Your task to perform on an android device: remove spam from my inbox in the gmail app Image 0: 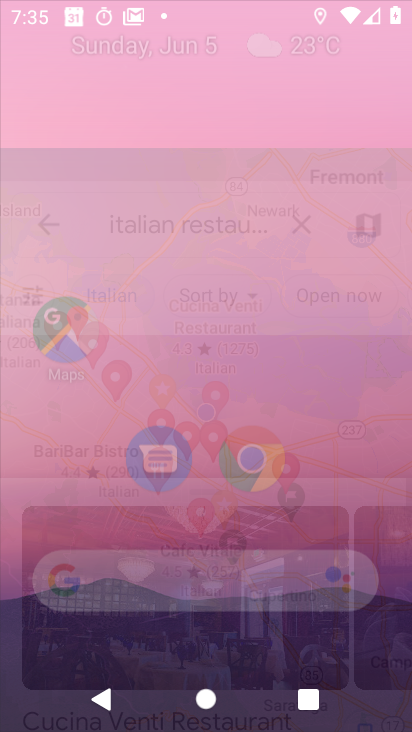
Step 0: click (132, 25)
Your task to perform on an android device: remove spam from my inbox in the gmail app Image 1: 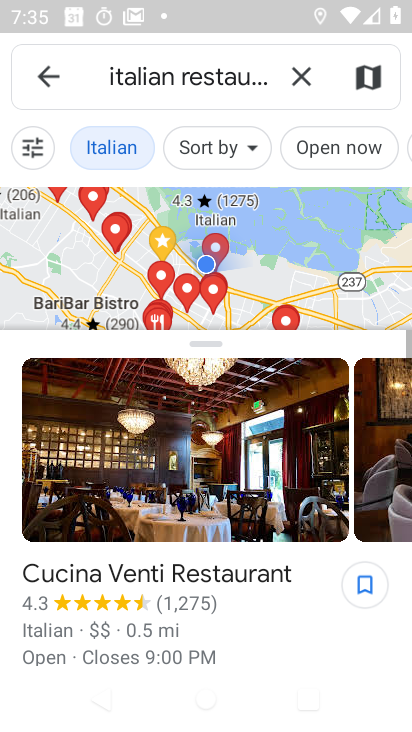
Step 1: press home button
Your task to perform on an android device: remove spam from my inbox in the gmail app Image 2: 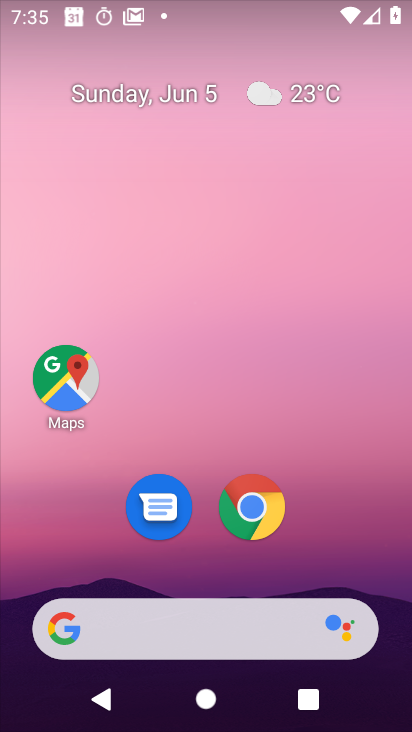
Step 2: drag from (291, 623) to (140, 1)
Your task to perform on an android device: remove spam from my inbox in the gmail app Image 3: 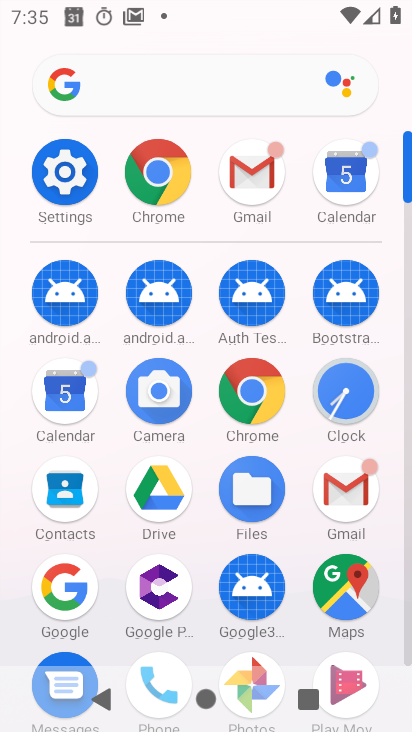
Step 3: click (246, 189)
Your task to perform on an android device: remove spam from my inbox in the gmail app Image 4: 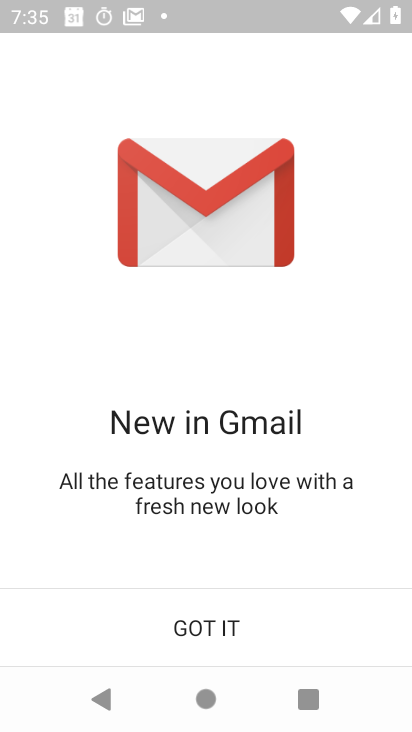
Step 4: click (205, 640)
Your task to perform on an android device: remove spam from my inbox in the gmail app Image 5: 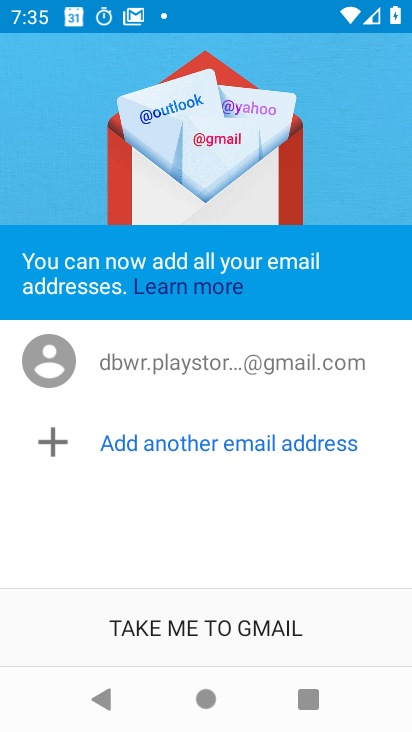
Step 5: click (206, 632)
Your task to perform on an android device: remove spam from my inbox in the gmail app Image 6: 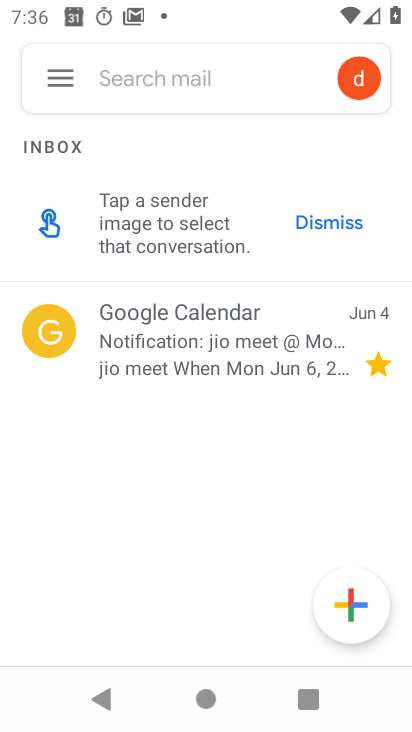
Step 6: click (71, 76)
Your task to perform on an android device: remove spam from my inbox in the gmail app Image 7: 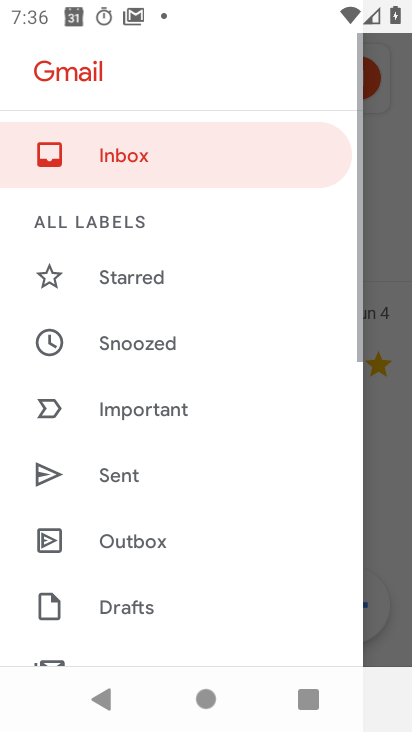
Step 7: drag from (161, 521) to (170, 252)
Your task to perform on an android device: remove spam from my inbox in the gmail app Image 8: 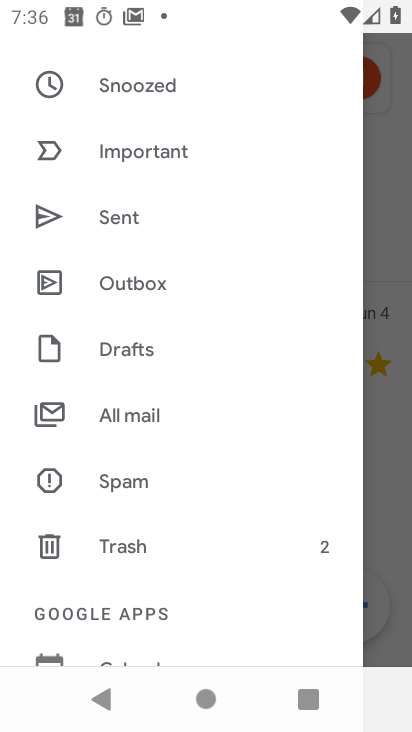
Step 8: click (153, 481)
Your task to perform on an android device: remove spam from my inbox in the gmail app Image 9: 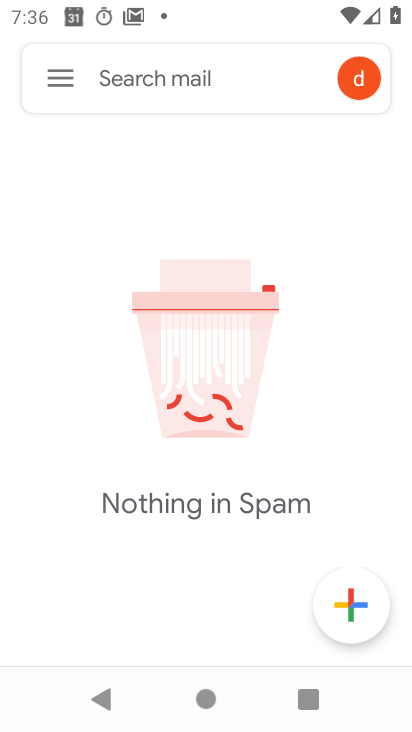
Step 9: task complete